Your task to perform on an android device: Open calendar and show me the second week of next month Image 0: 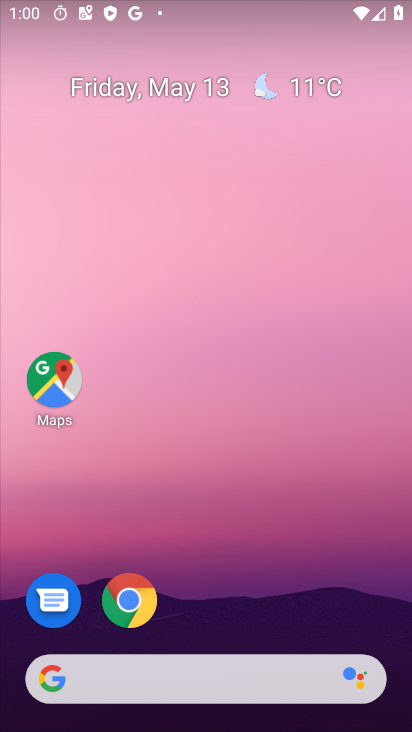
Step 0: drag from (278, 580) to (278, 66)
Your task to perform on an android device: Open calendar and show me the second week of next month Image 1: 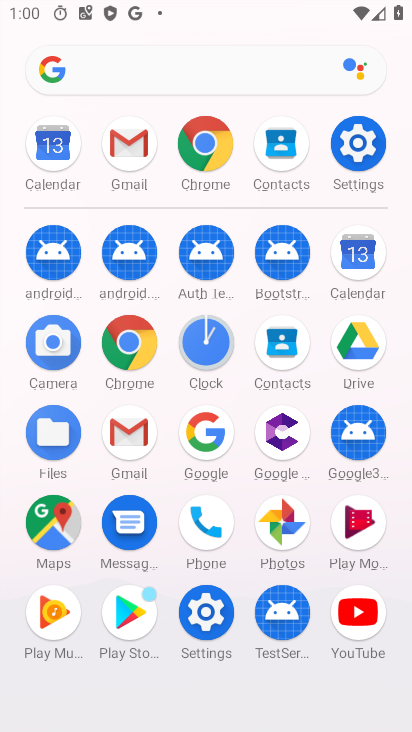
Step 1: click (70, 155)
Your task to perform on an android device: Open calendar and show me the second week of next month Image 2: 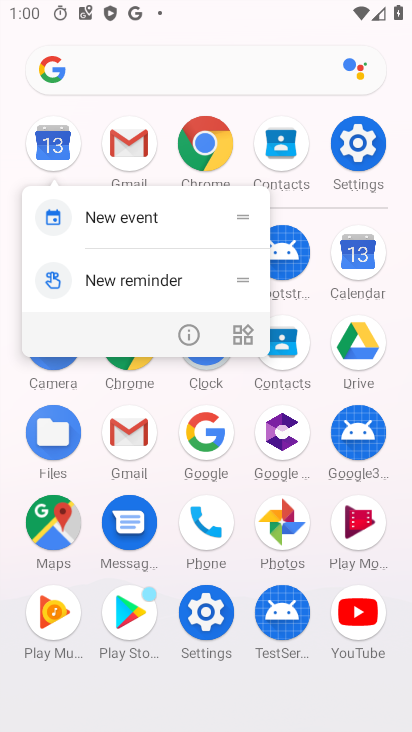
Step 2: click (189, 322)
Your task to perform on an android device: Open calendar and show me the second week of next month Image 3: 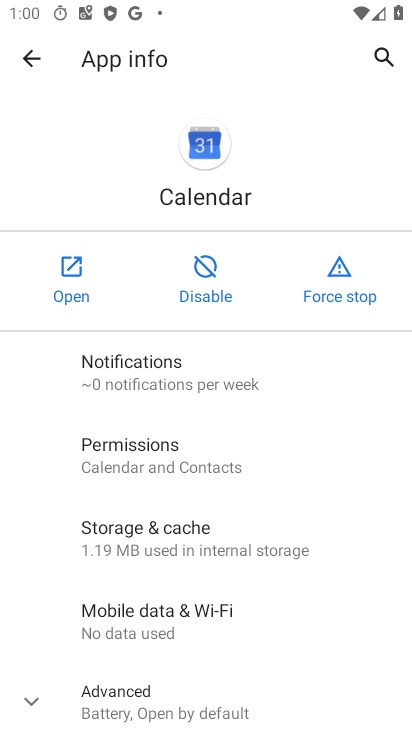
Step 3: click (59, 292)
Your task to perform on an android device: Open calendar and show me the second week of next month Image 4: 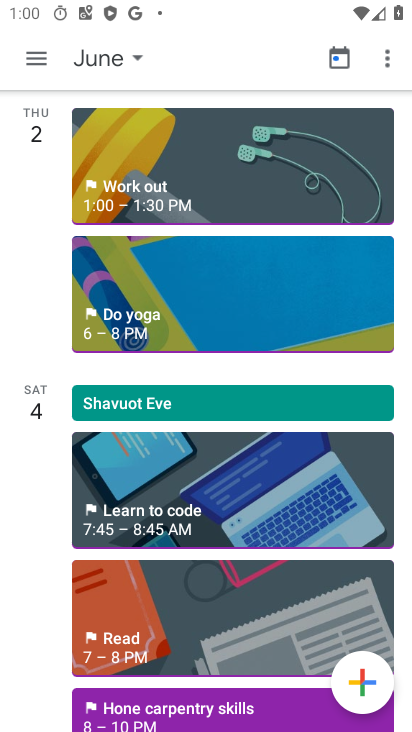
Step 4: click (125, 37)
Your task to perform on an android device: Open calendar and show me the second week of next month Image 5: 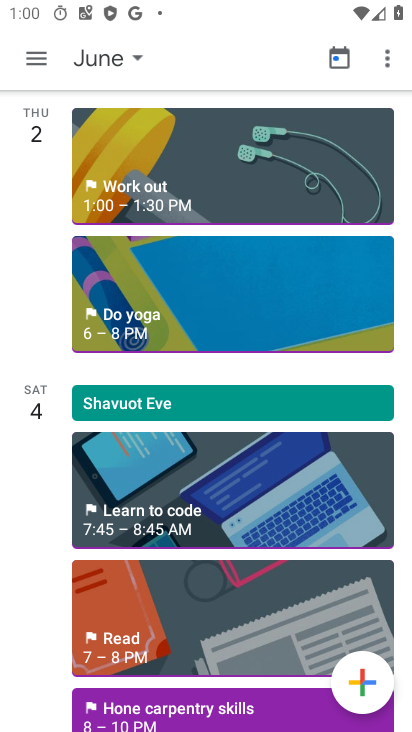
Step 5: click (110, 49)
Your task to perform on an android device: Open calendar and show me the second week of next month Image 6: 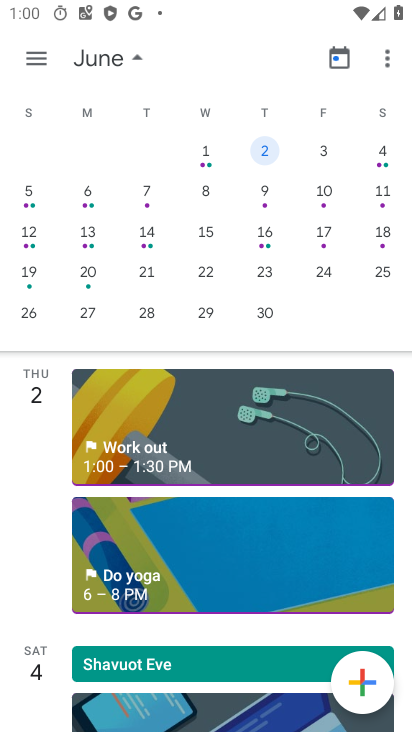
Step 6: drag from (366, 213) to (0, 222)
Your task to perform on an android device: Open calendar and show me the second week of next month Image 7: 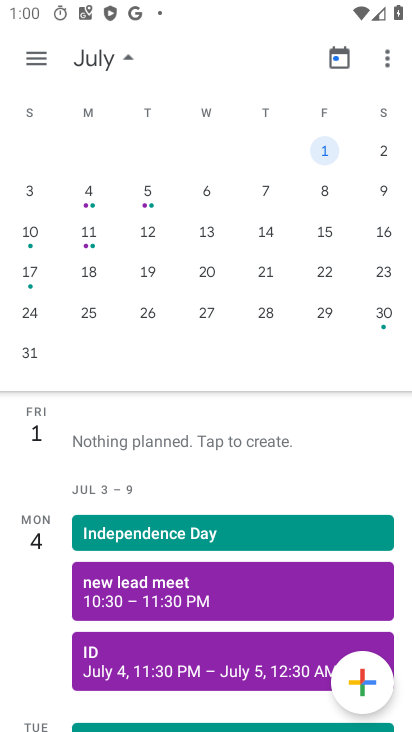
Step 7: drag from (69, 244) to (405, 229)
Your task to perform on an android device: Open calendar and show me the second week of next month Image 8: 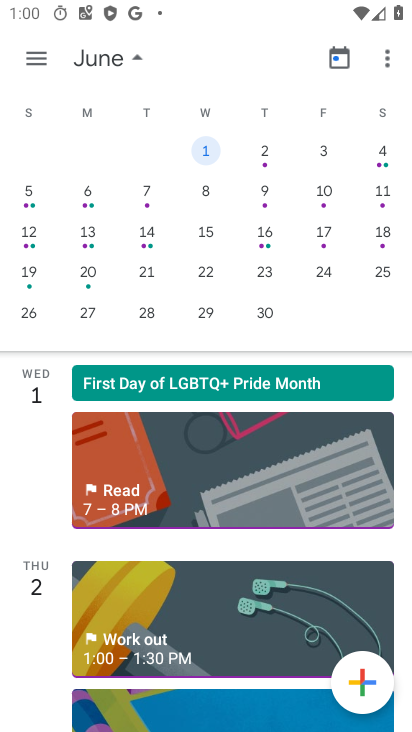
Step 8: click (265, 192)
Your task to perform on an android device: Open calendar and show me the second week of next month Image 9: 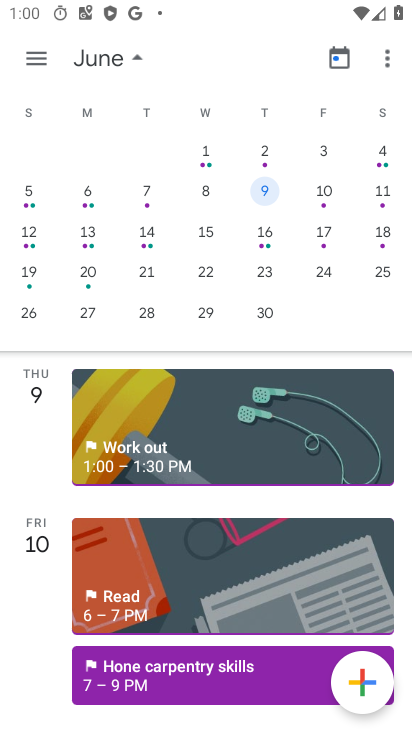
Step 9: task complete